Your task to perform on an android device: add a label to a message in the gmail app Image 0: 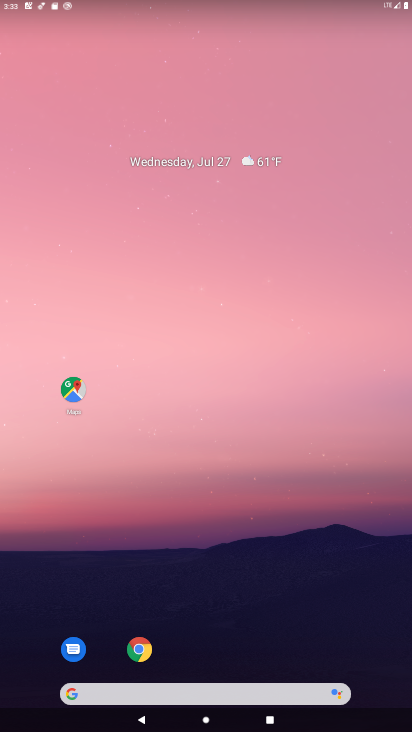
Step 0: drag from (223, 615) to (199, 639)
Your task to perform on an android device: add a label to a message in the gmail app Image 1: 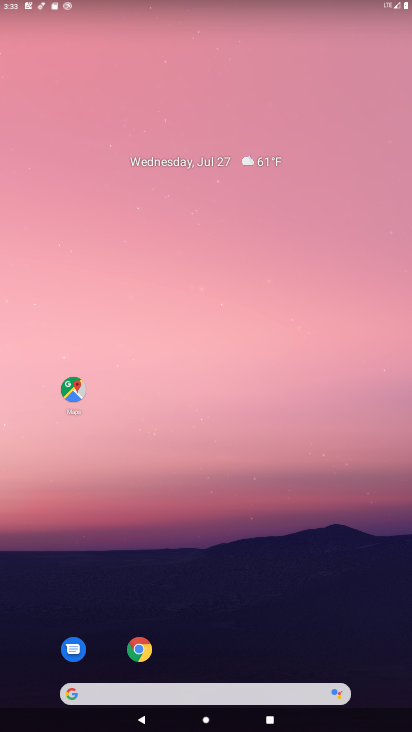
Step 1: drag from (199, 639) to (12, 235)
Your task to perform on an android device: add a label to a message in the gmail app Image 2: 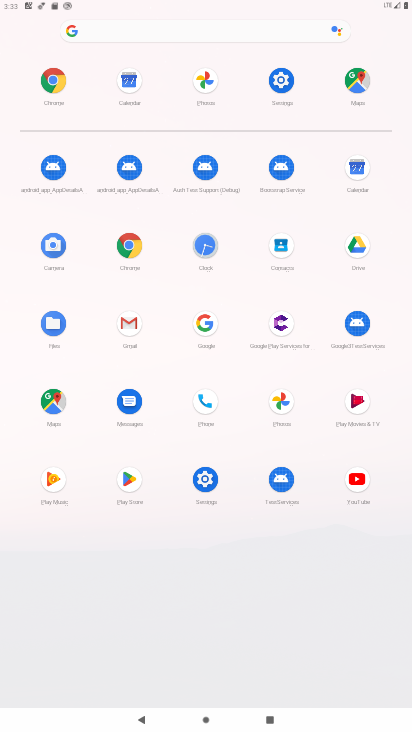
Step 2: click (130, 335)
Your task to perform on an android device: add a label to a message in the gmail app Image 3: 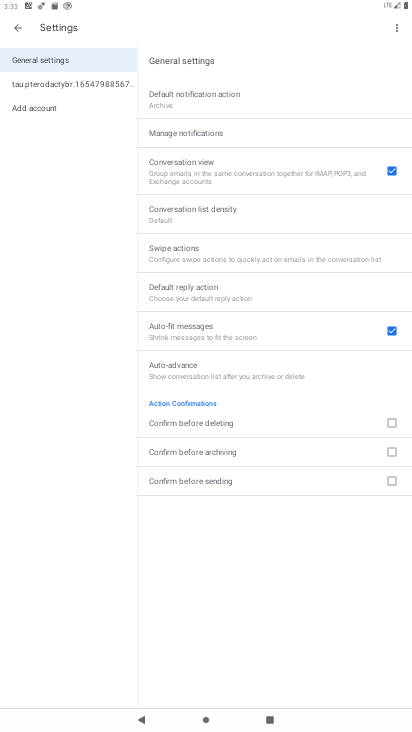
Step 3: click (51, 78)
Your task to perform on an android device: add a label to a message in the gmail app Image 4: 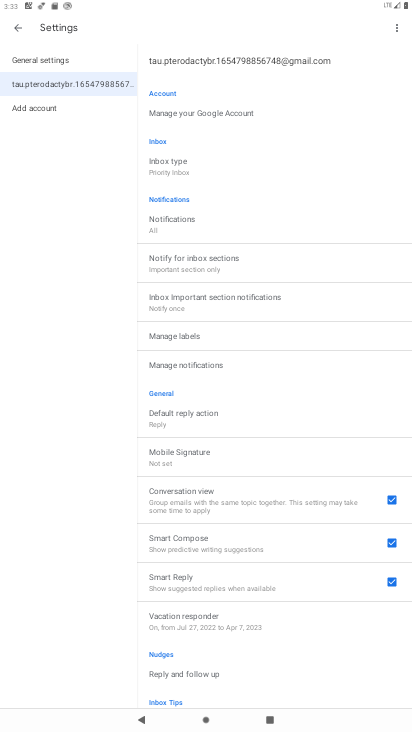
Step 4: click (16, 24)
Your task to perform on an android device: add a label to a message in the gmail app Image 5: 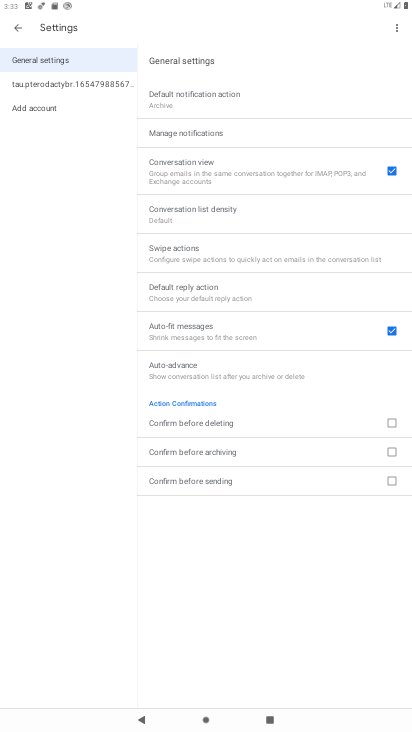
Step 5: click (16, 24)
Your task to perform on an android device: add a label to a message in the gmail app Image 6: 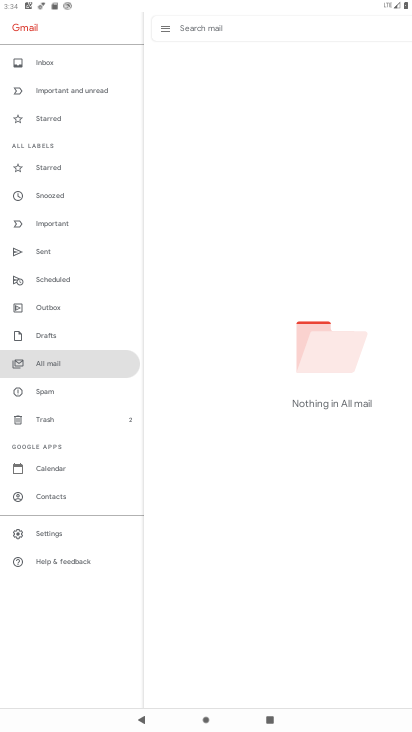
Step 6: task complete